Your task to perform on an android device: Search for pizza restaurants on Maps Image 0: 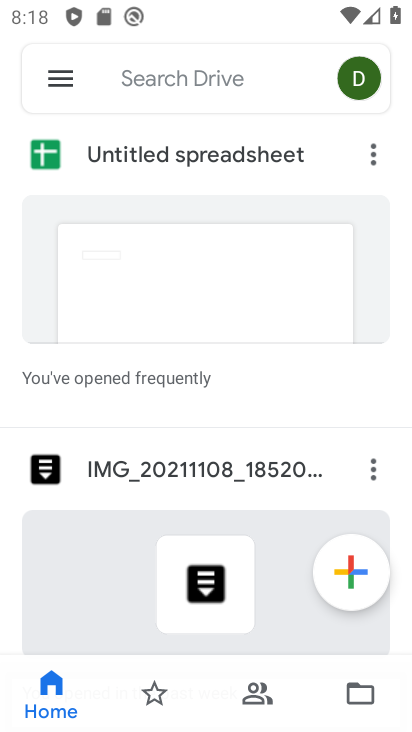
Step 0: press home button
Your task to perform on an android device: Search for pizza restaurants on Maps Image 1: 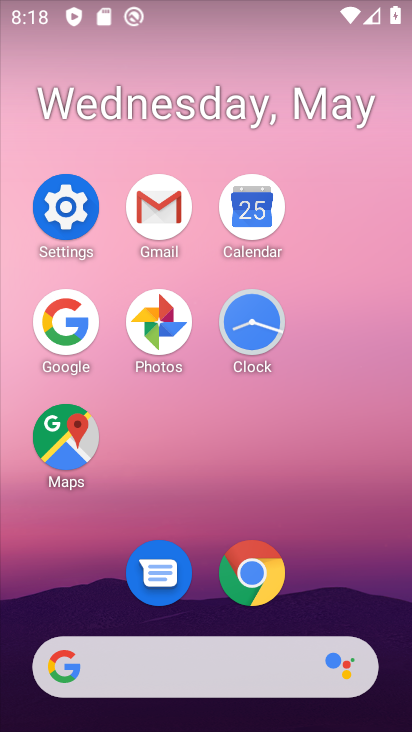
Step 1: click (30, 427)
Your task to perform on an android device: Search for pizza restaurants on Maps Image 2: 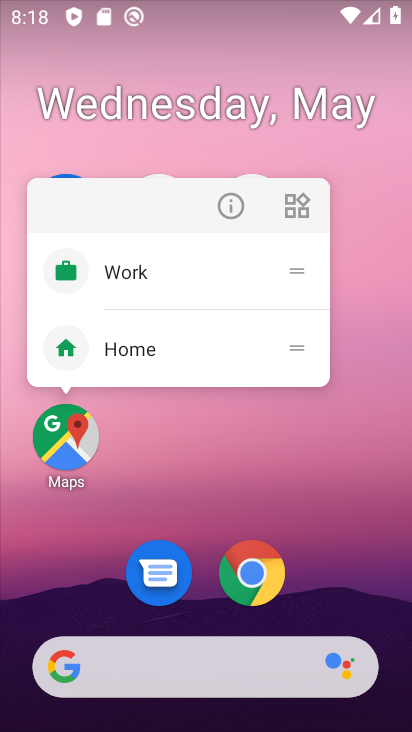
Step 2: click (76, 460)
Your task to perform on an android device: Search for pizza restaurants on Maps Image 3: 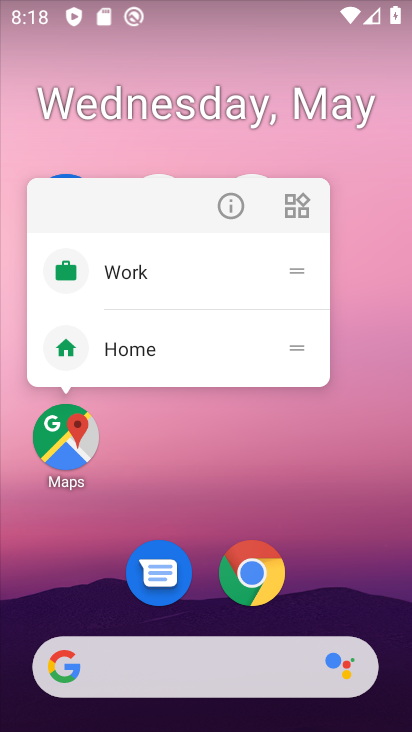
Step 3: click (65, 452)
Your task to perform on an android device: Search for pizza restaurants on Maps Image 4: 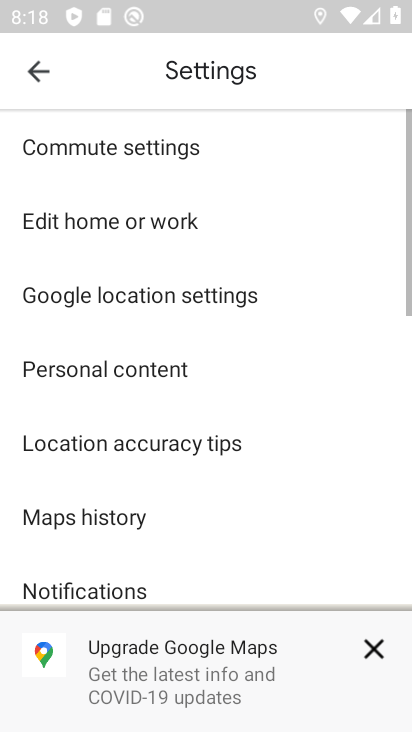
Step 4: click (56, 73)
Your task to perform on an android device: Search for pizza restaurants on Maps Image 5: 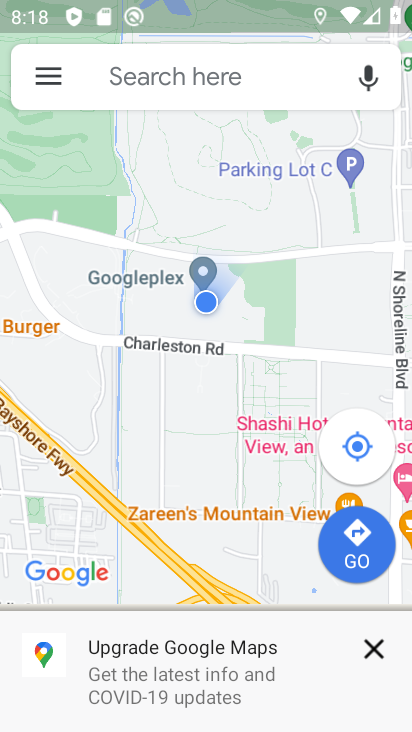
Step 5: click (250, 96)
Your task to perform on an android device: Search for pizza restaurants on Maps Image 6: 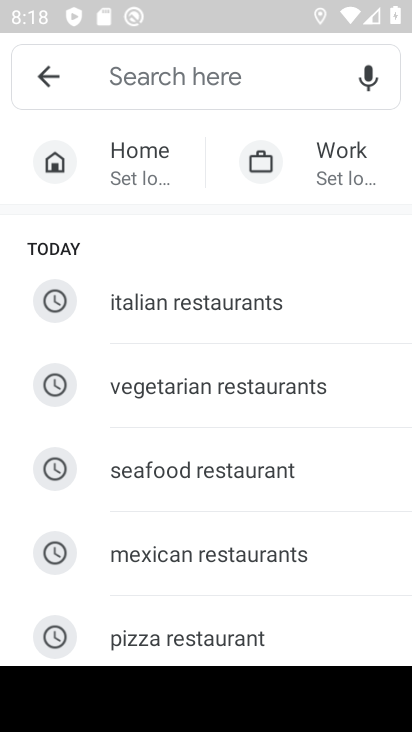
Step 6: click (187, 637)
Your task to perform on an android device: Search for pizza restaurants on Maps Image 7: 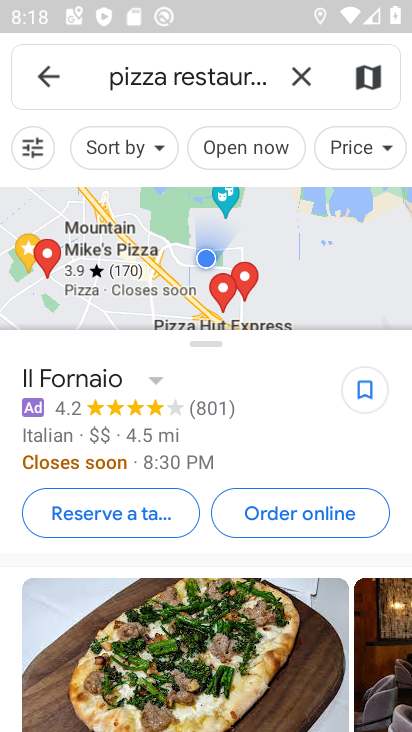
Step 7: task complete